Your task to perform on an android device: Go to internet settings Image 0: 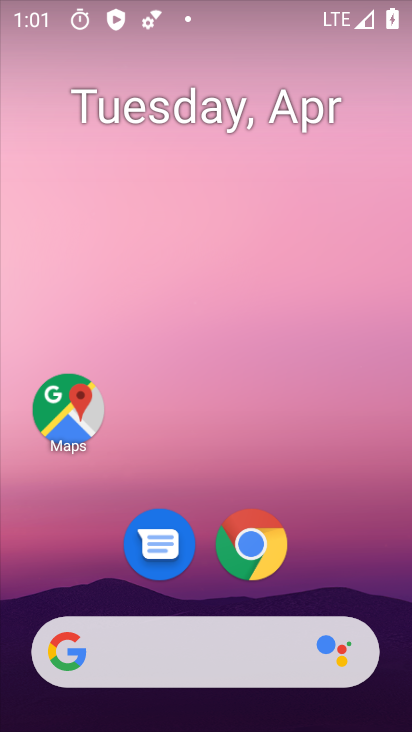
Step 0: drag from (383, 575) to (356, 25)
Your task to perform on an android device: Go to internet settings Image 1: 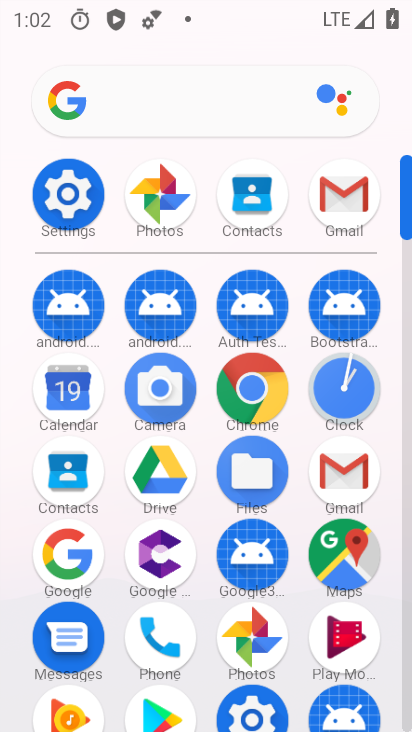
Step 1: click (74, 195)
Your task to perform on an android device: Go to internet settings Image 2: 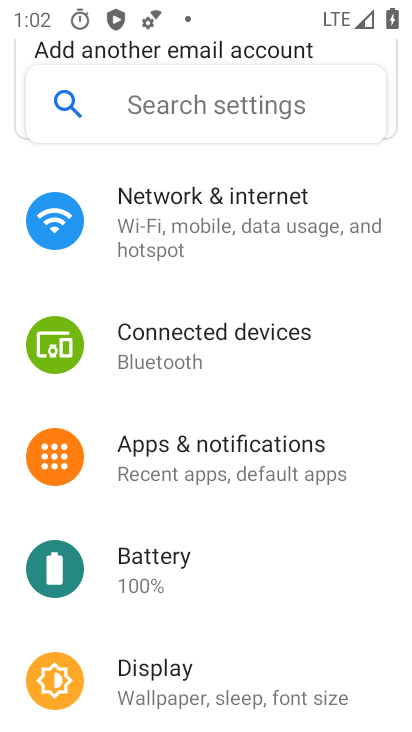
Step 2: click (192, 224)
Your task to perform on an android device: Go to internet settings Image 3: 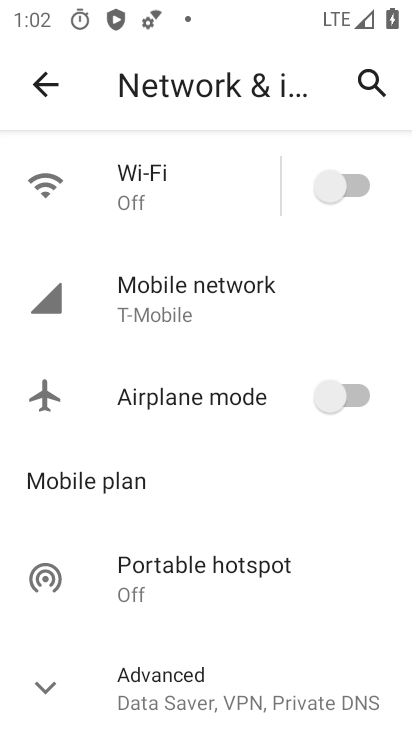
Step 3: task complete